Your task to perform on an android device: Go to Google Image 0: 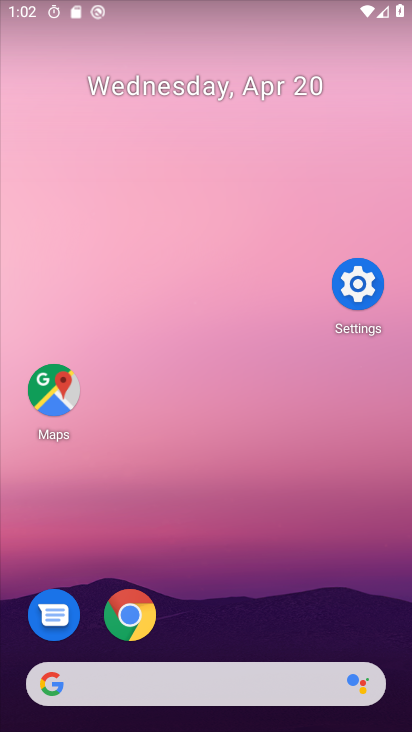
Step 0: drag from (211, 627) to (83, 0)
Your task to perform on an android device: Go to Google Image 1: 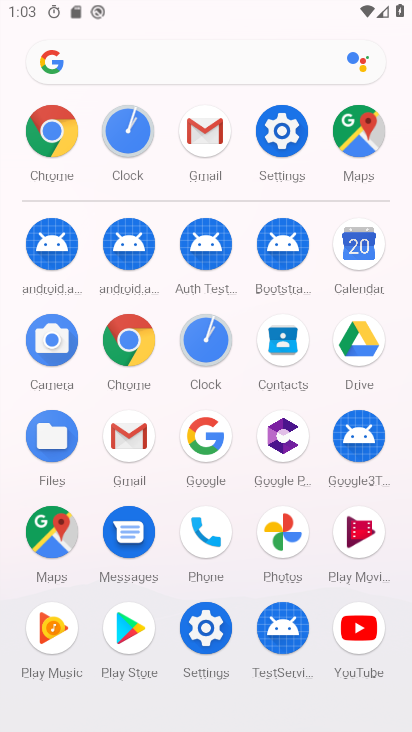
Step 1: click (222, 434)
Your task to perform on an android device: Go to Google Image 2: 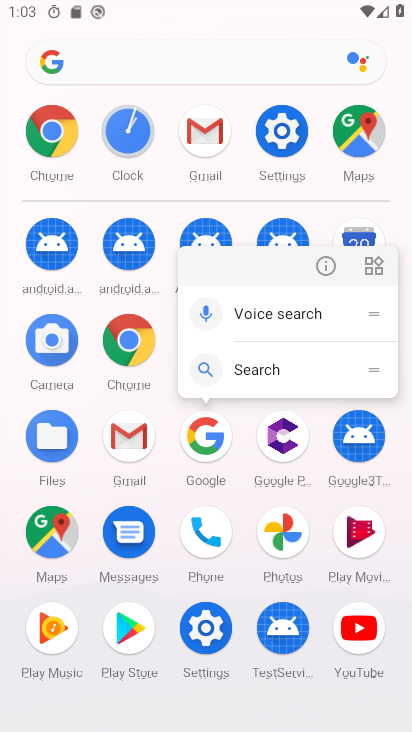
Step 2: click (322, 272)
Your task to perform on an android device: Go to Google Image 3: 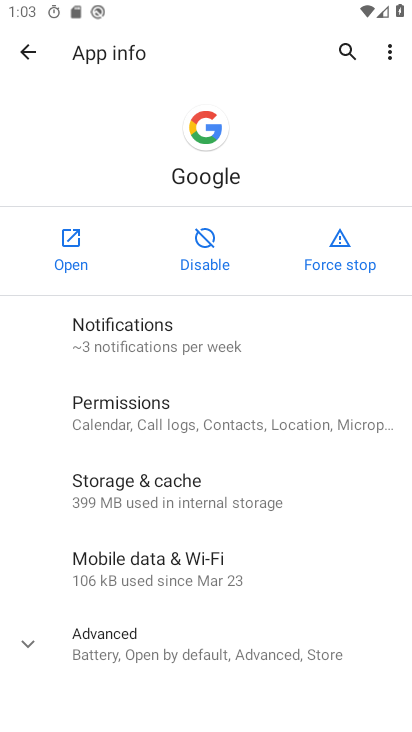
Step 3: click (81, 237)
Your task to perform on an android device: Go to Google Image 4: 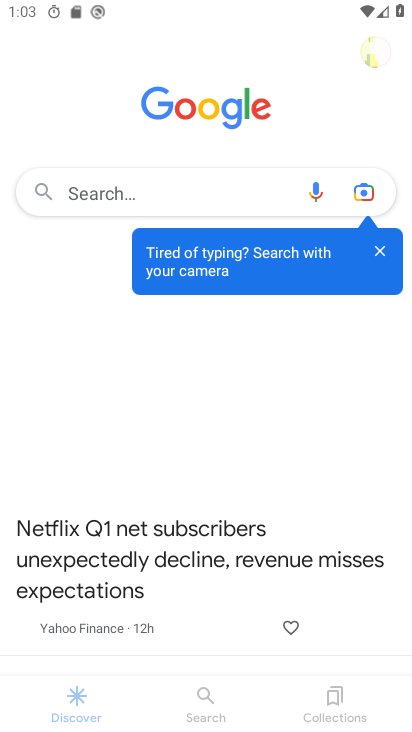
Step 4: task complete